Your task to perform on an android device: Show me the alarms in the clock app Image 0: 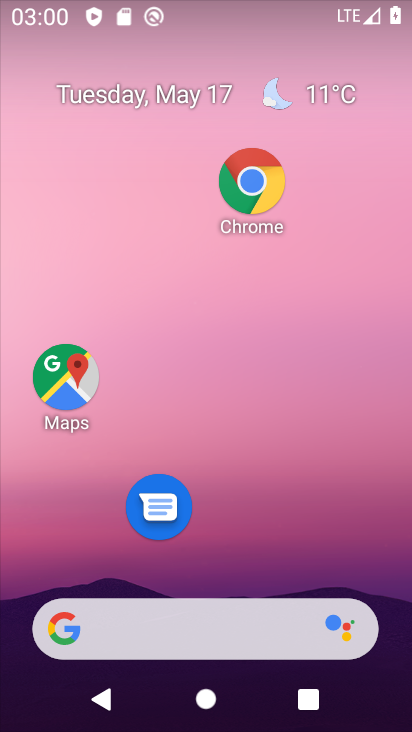
Step 0: drag from (212, 577) to (242, 196)
Your task to perform on an android device: Show me the alarms in the clock app Image 1: 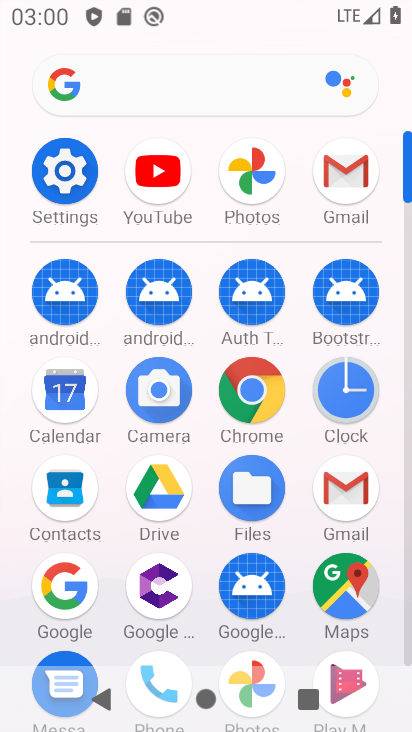
Step 1: click (340, 390)
Your task to perform on an android device: Show me the alarms in the clock app Image 2: 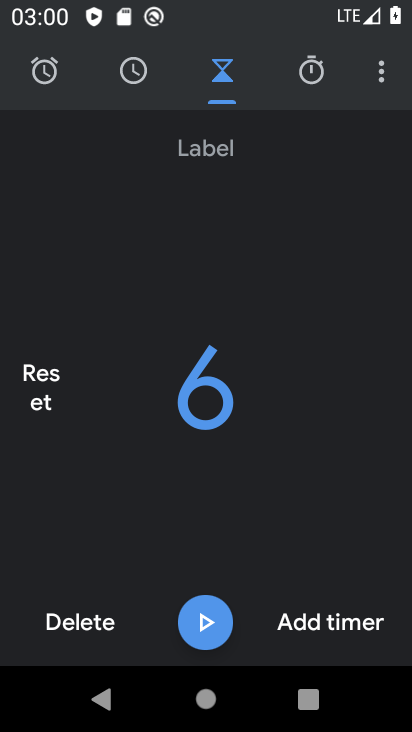
Step 2: click (133, 78)
Your task to perform on an android device: Show me the alarms in the clock app Image 3: 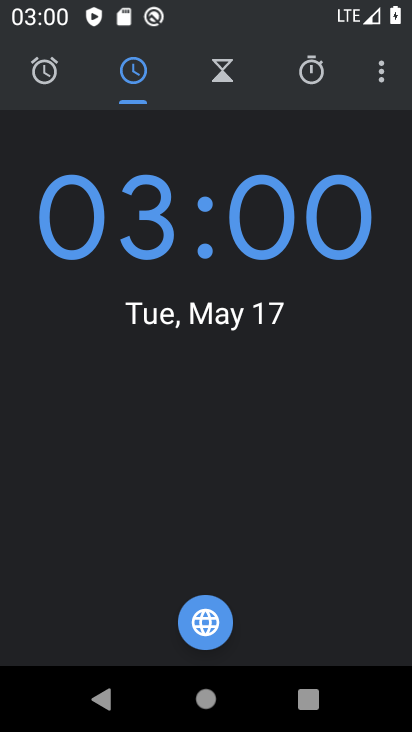
Step 3: click (79, 86)
Your task to perform on an android device: Show me the alarms in the clock app Image 4: 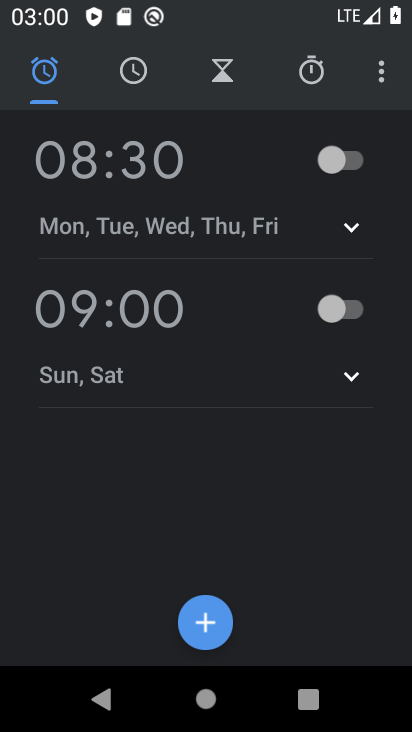
Step 4: task complete